Your task to perform on an android device: Go to accessibility settings Image 0: 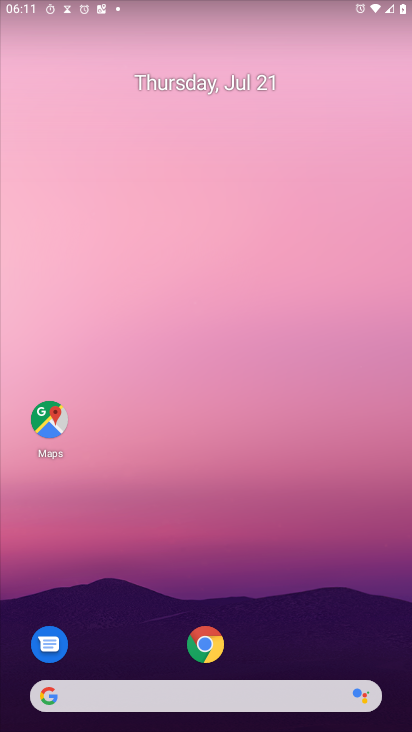
Step 0: press home button
Your task to perform on an android device: Go to accessibility settings Image 1: 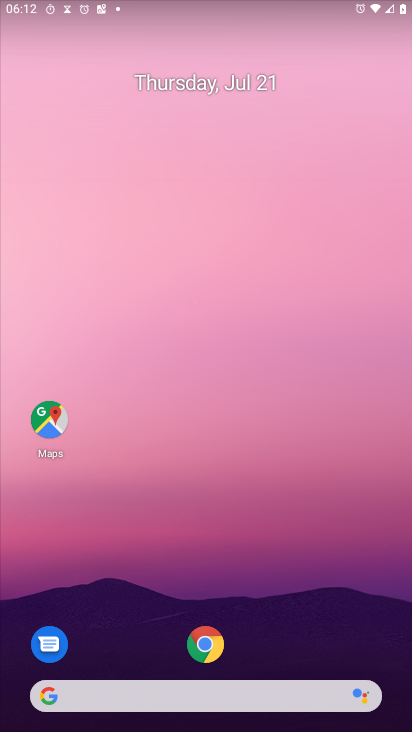
Step 1: drag from (290, 620) to (290, 164)
Your task to perform on an android device: Go to accessibility settings Image 2: 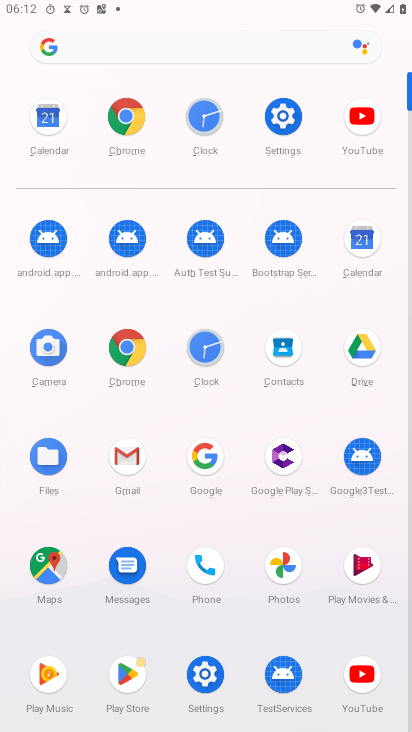
Step 2: click (279, 129)
Your task to perform on an android device: Go to accessibility settings Image 3: 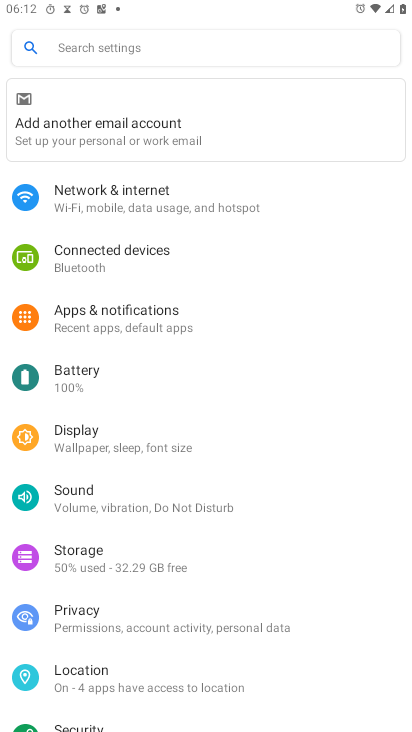
Step 3: drag from (330, 666) to (293, 261)
Your task to perform on an android device: Go to accessibility settings Image 4: 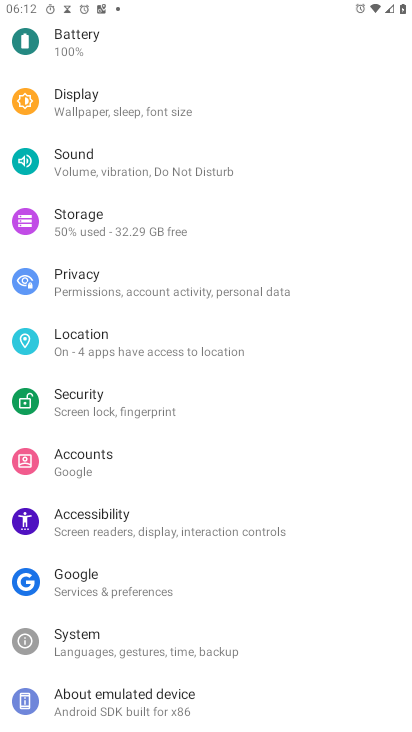
Step 4: click (80, 521)
Your task to perform on an android device: Go to accessibility settings Image 5: 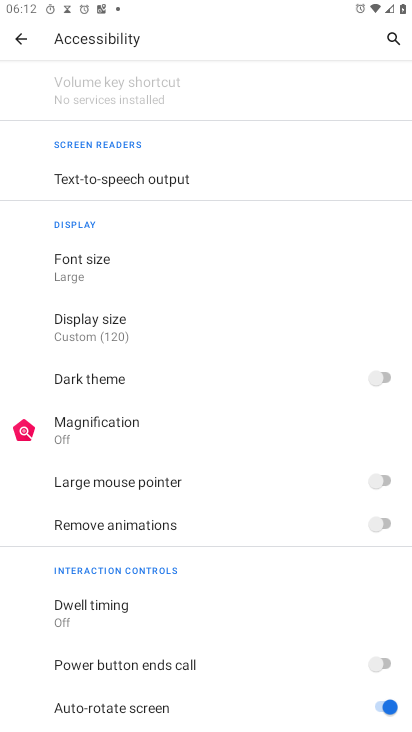
Step 5: task complete